Your task to perform on an android device: check android version Image 0: 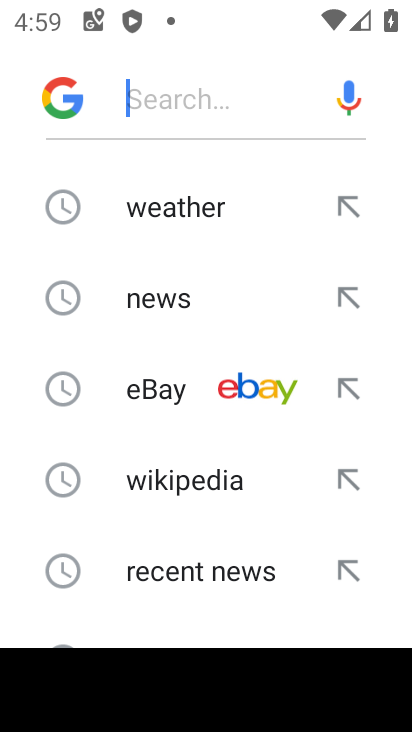
Step 0: press back button
Your task to perform on an android device: check android version Image 1: 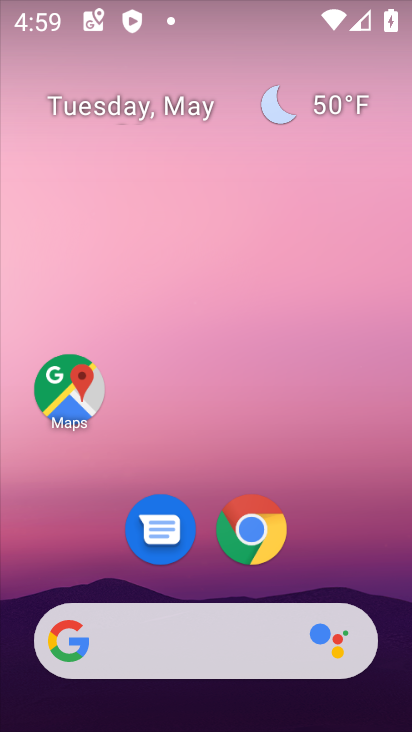
Step 1: drag from (338, 536) to (217, 0)
Your task to perform on an android device: check android version Image 2: 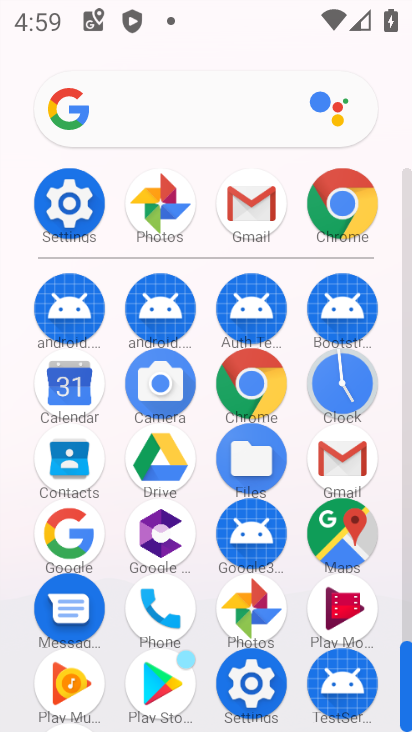
Step 2: drag from (24, 591) to (18, 286)
Your task to perform on an android device: check android version Image 3: 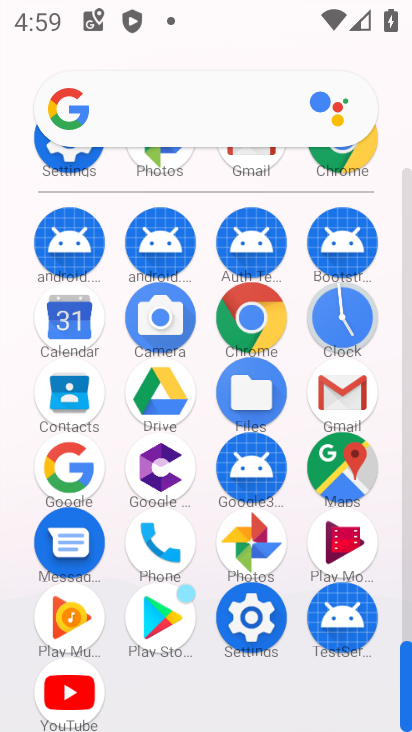
Step 3: click (247, 613)
Your task to perform on an android device: check android version Image 4: 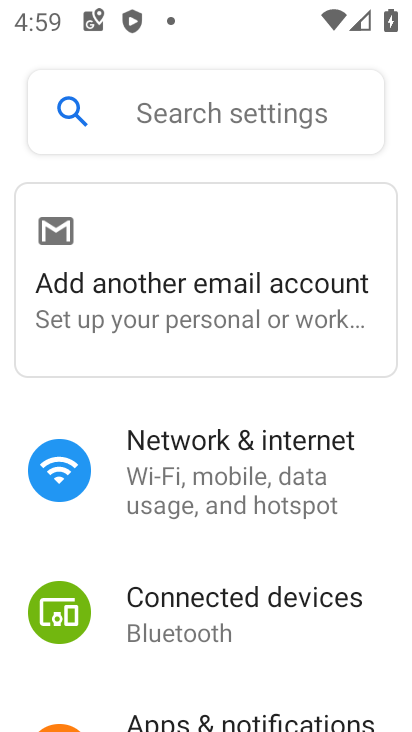
Step 4: drag from (265, 650) to (266, 76)
Your task to perform on an android device: check android version Image 5: 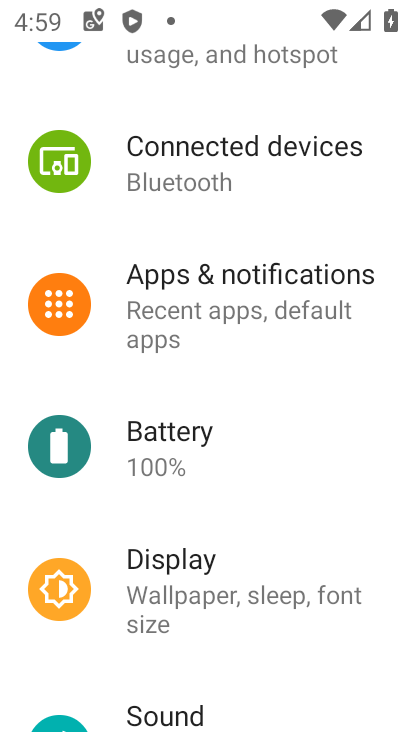
Step 5: drag from (219, 620) to (205, 141)
Your task to perform on an android device: check android version Image 6: 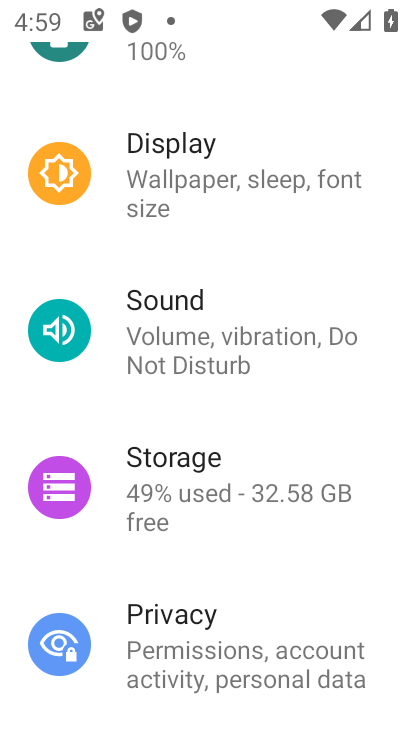
Step 6: drag from (234, 659) to (234, 113)
Your task to perform on an android device: check android version Image 7: 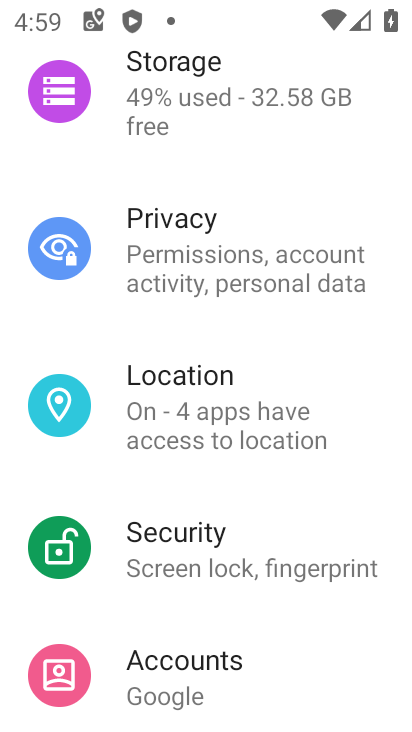
Step 7: drag from (233, 587) to (224, 97)
Your task to perform on an android device: check android version Image 8: 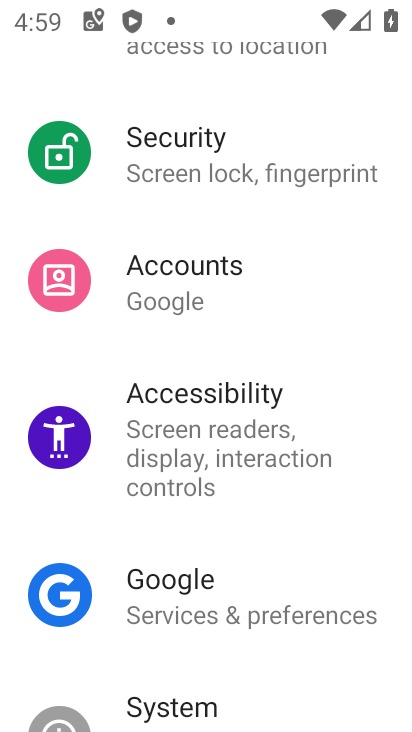
Step 8: drag from (247, 630) to (251, 74)
Your task to perform on an android device: check android version Image 9: 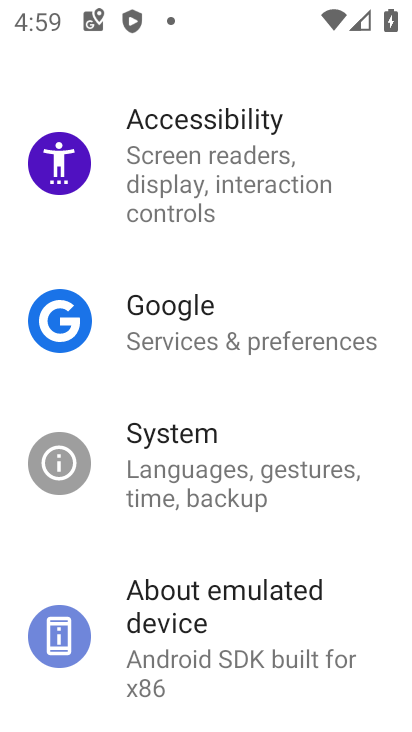
Step 9: click (191, 638)
Your task to perform on an android device: check android version Image 10: 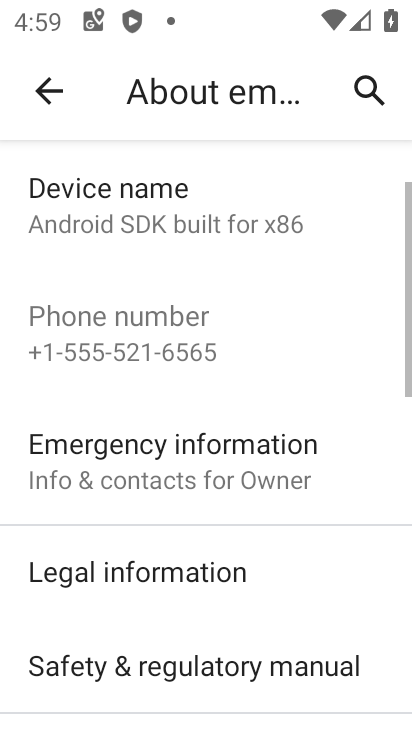
Step 10: task complete